Your task to perform on an android device: Do I have any events this weekend? Image 0: 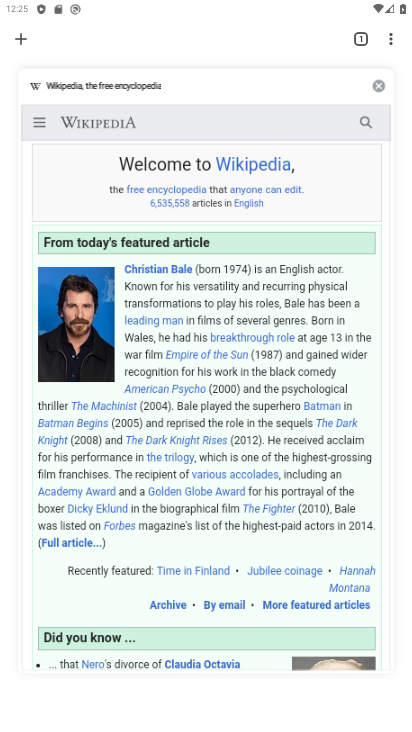
Step 0: press home button
Your task to perform on an android device: Do I have any events this weekend? Image 1: 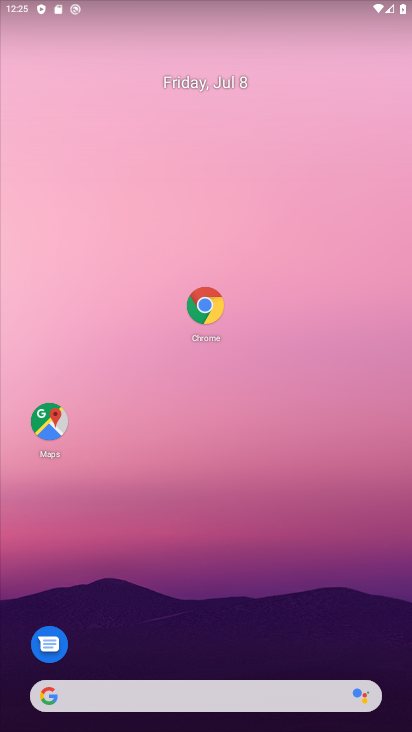
Step 1: drag from (157, 709) to (193, 274)
Your task to perform on an android device: Do I have any events this weekend? Image 2: 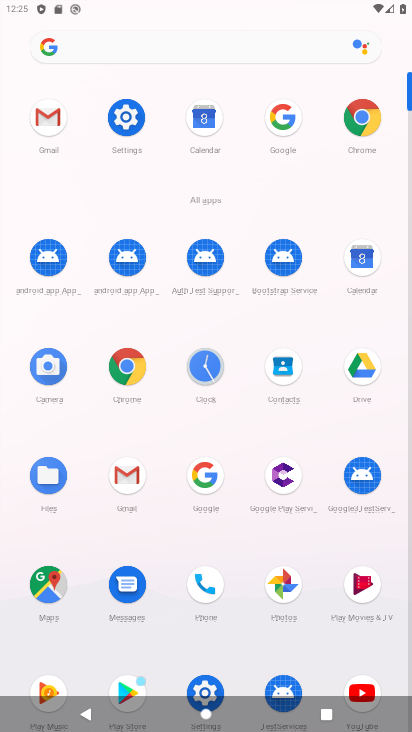
Step 2: click (204, 119)
Your task to perform on an android device: Do I have any events this weekend? Image 3: 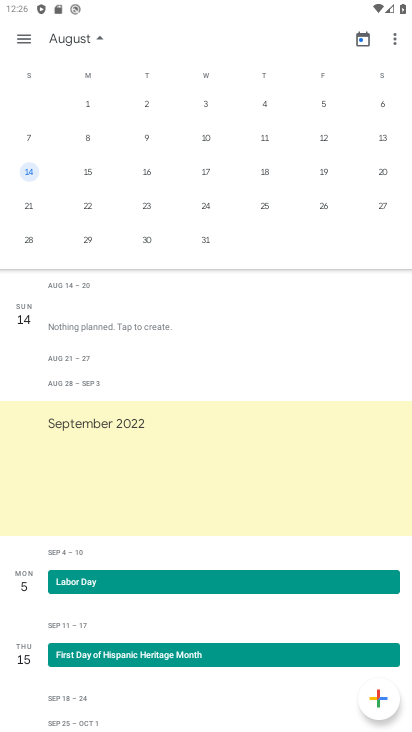
Step 3: task complete